Your task to perform on an android device: Turn on the flashlight Image 0: 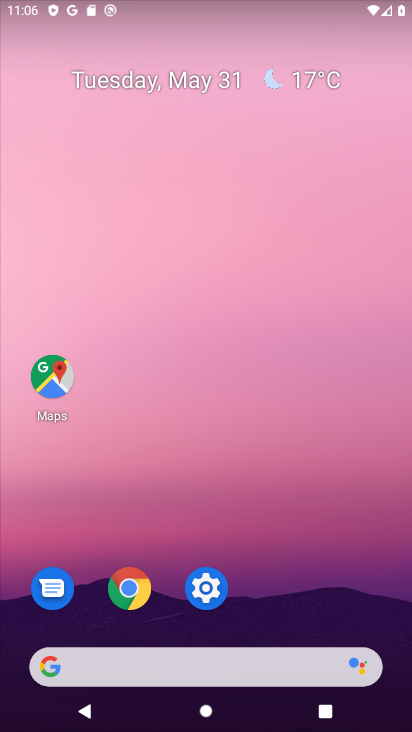
Step 0: click (205, 584)
Your task to perform on an android device: Turn on the flashlight Image 1: 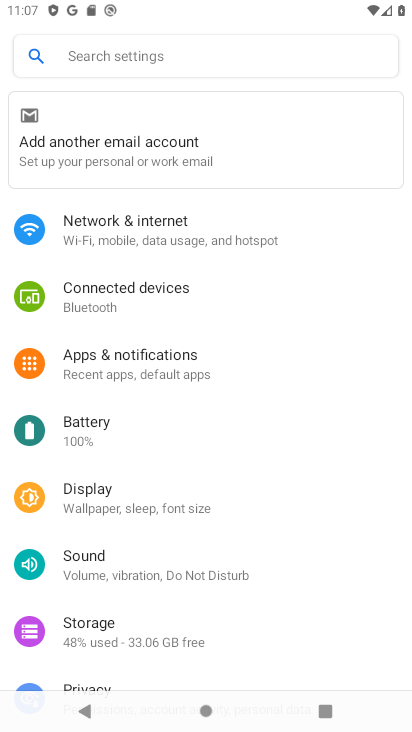
Step 1: click (128, 62)
Your task to perform on an android device: Turn on the flashlight Image 2: 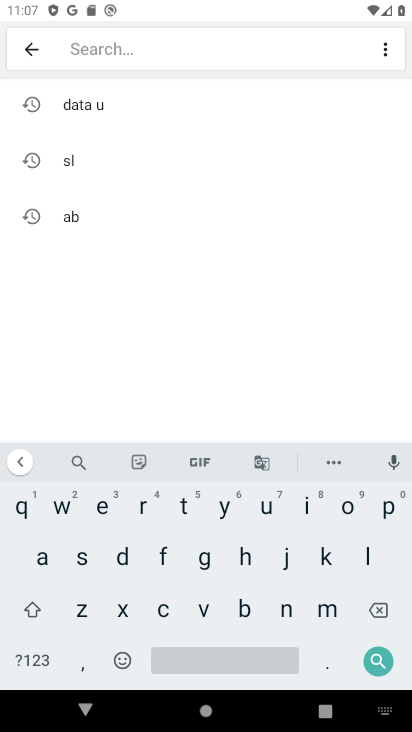
Step 2: click (163, 556)
Your task to perform on an android device: Turn on the flashlight Image 3: 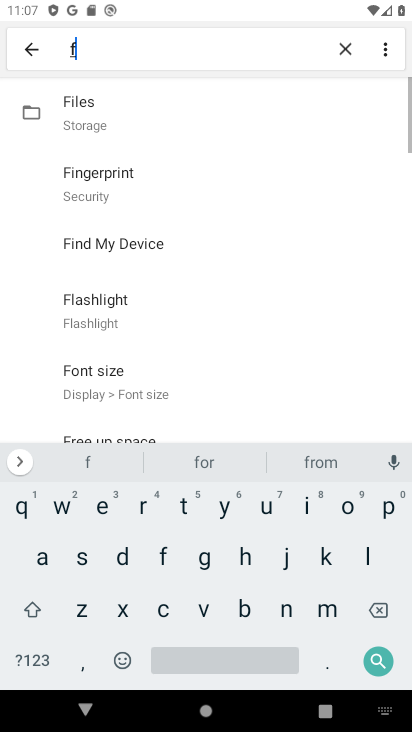
Step 3: click (367, 557)
Your task to perform on an android device: Turn on the flashlight Image 4: 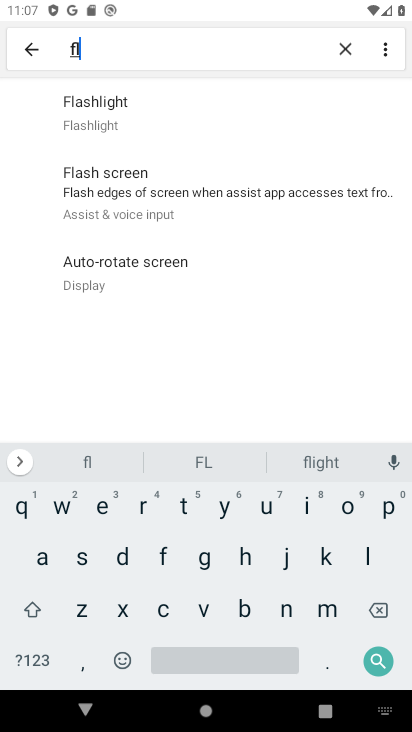
Step 4: click (129, 127)
Your task to perform on an android device: Turn on the flashlight Image 5: 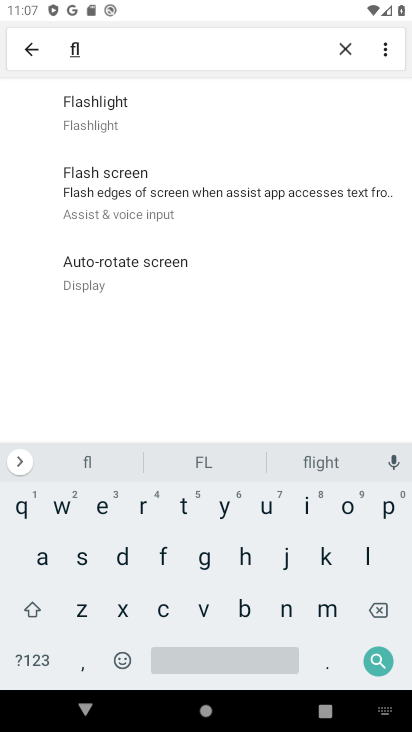
Step 5: click (156, 107)
Your task to perform on an android device: Turn on the flashlight Image 6: 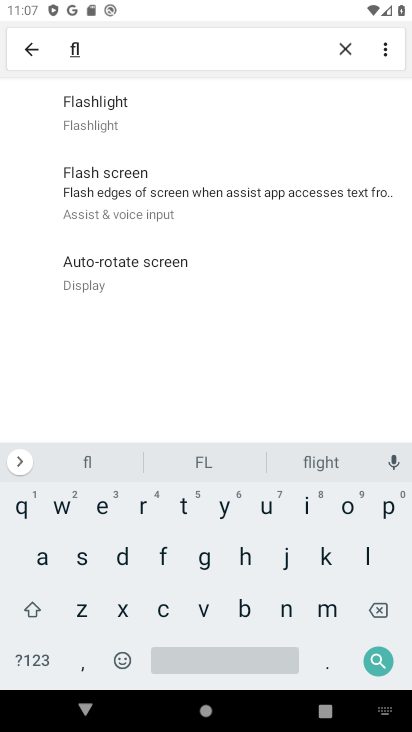
Step 6: click (133, 107)
Your task to perform on an android device: Turn on the flashlight Image 7: 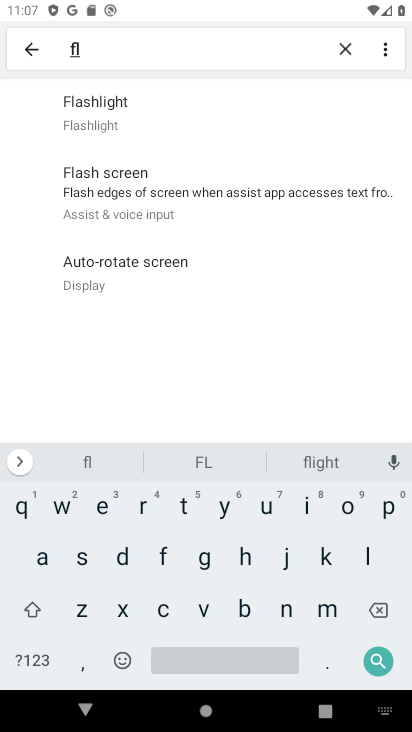
Step 7: task complete